Your task to perform on an android device: Open the calendar and show me this week's events? Image 0: 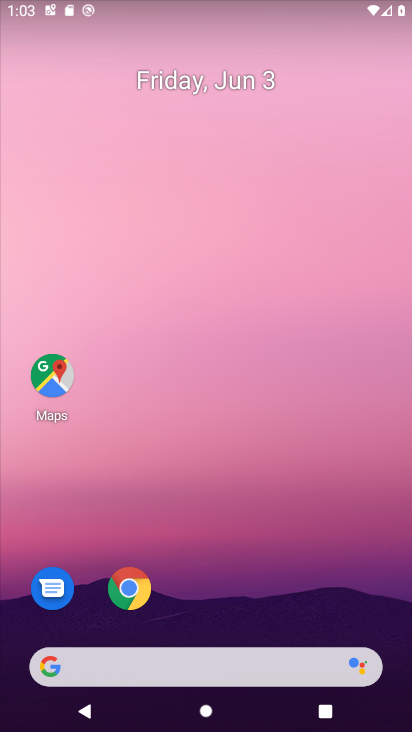
Step 0: drag from (281, 607) to (281, 191)
Your task to perform on an android device: Open the calendar and show me this week's events? Image 1: 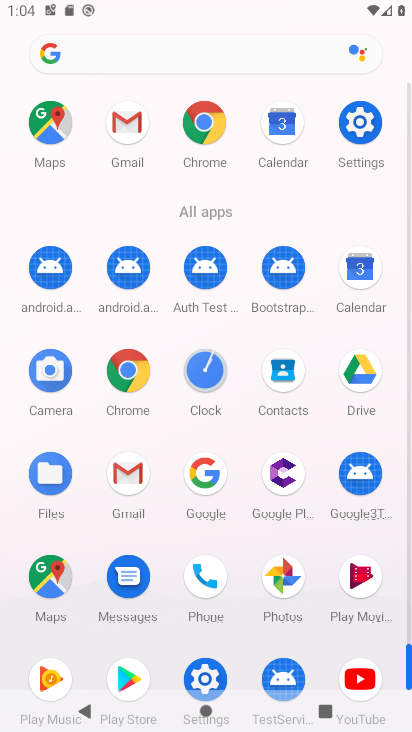
Step 1: click (375, 284)
Your task to perform on an android device: Open the calendar and show me this week's events? Image 2: 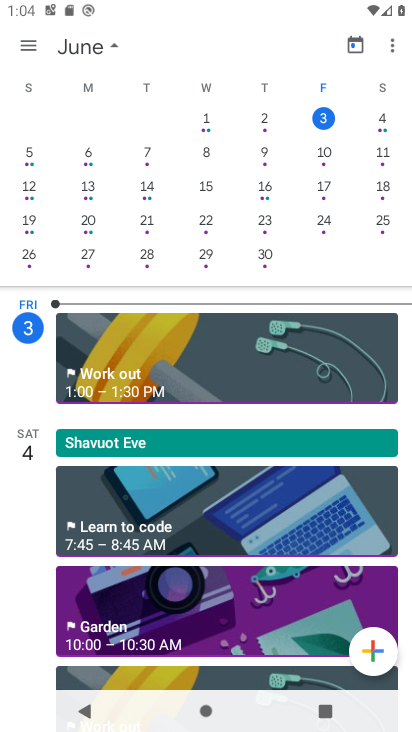
Step 2: task complete